Your task to perform on an android device: add a contact in the contacts app Image 0: 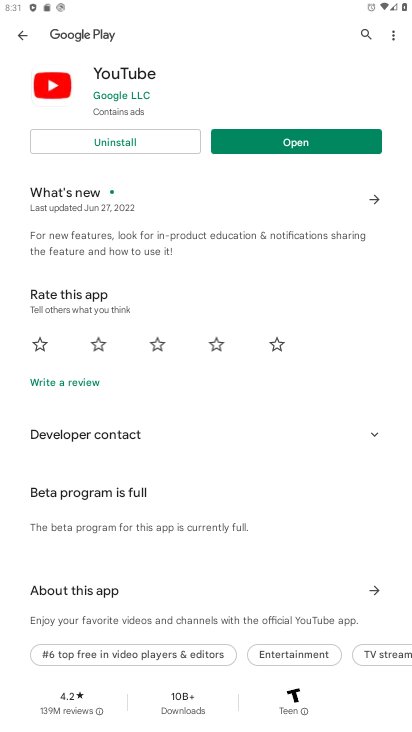
Step 0: press home button
Your task to perform on an android device: add a contact in the contacts app Image 1: 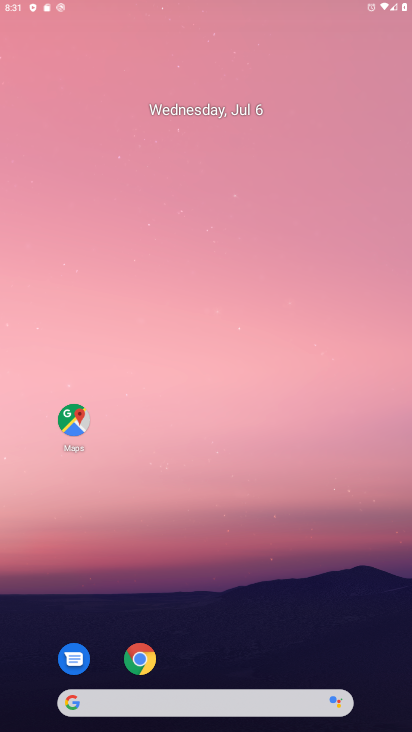
Step 1: drag from (184, 586) to (218, 76)
Your task to perform on an android device: add a contact in the contacts app Image 2: 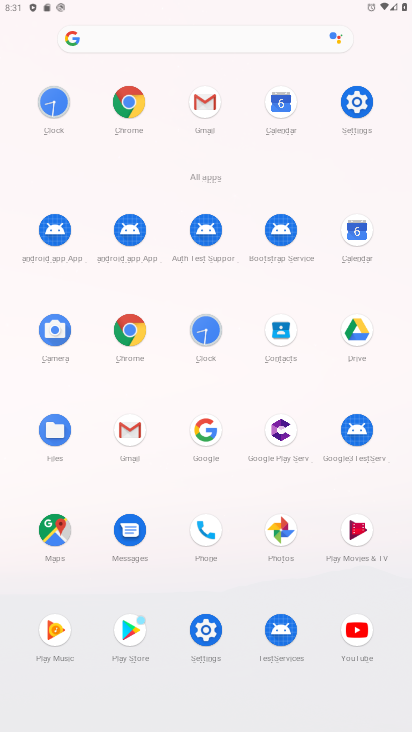
Step 2: click (281, 334)
Your task to perform on an android device: add a contact in the contacts app Image 3: 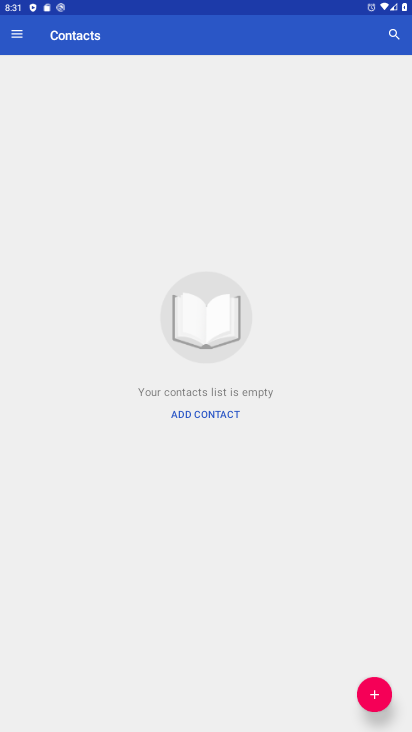
Step 3: click (380, 691)
Your task to perform on an android device: add a contact in the contacts app Image 4: 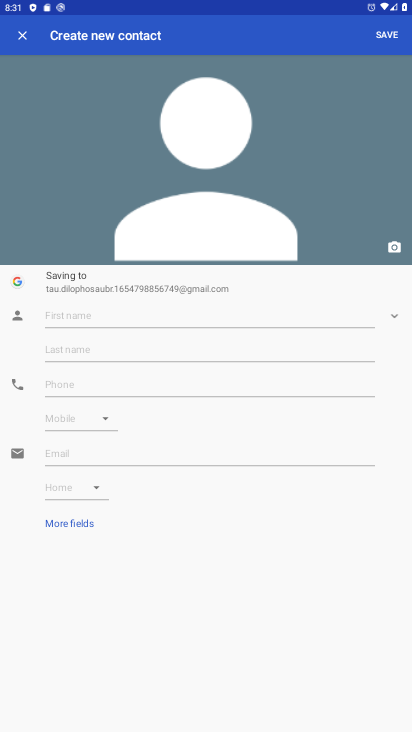
Step 4: click (239, 307)
Your task to perform on an android device: add a contact in the contacts app Image 5: 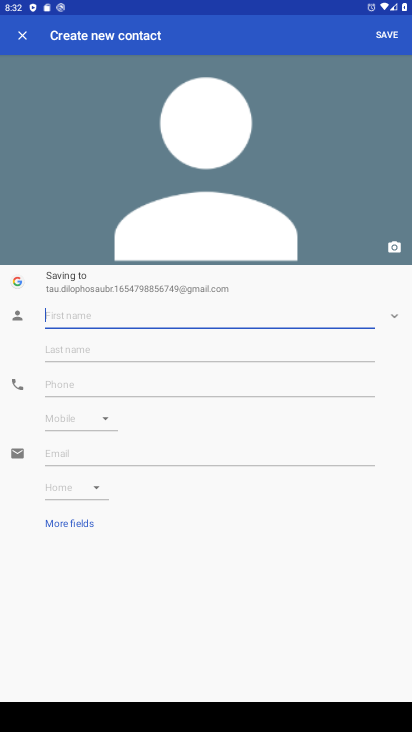
Step 5: type "gcjjcfdgfx"
Your task to perform on an android device: add a contact in the contacts app Image 6: 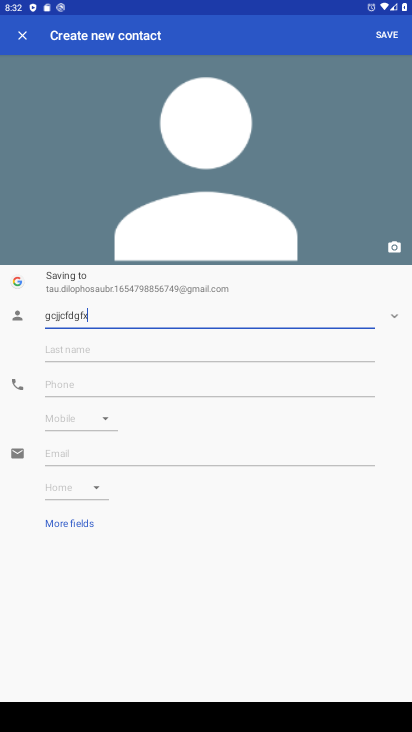
Step 6: click (71, 388)
Your task to perform on an android device: add a contact in the contacts app Image 7: 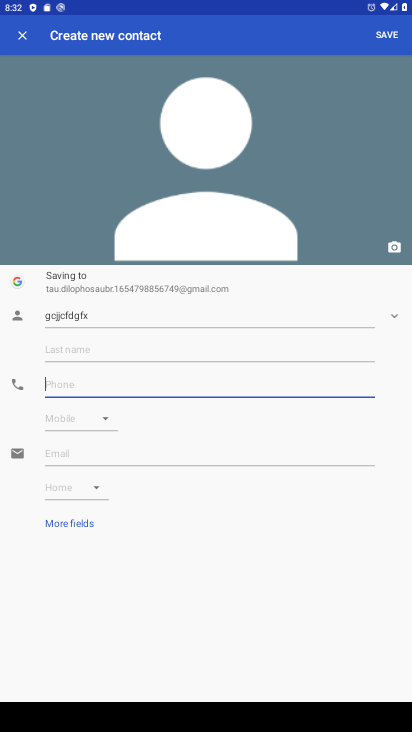
Step 7: type "98766678899"
Your task to perform on an android device: add a contact in the contacts app Image 8: 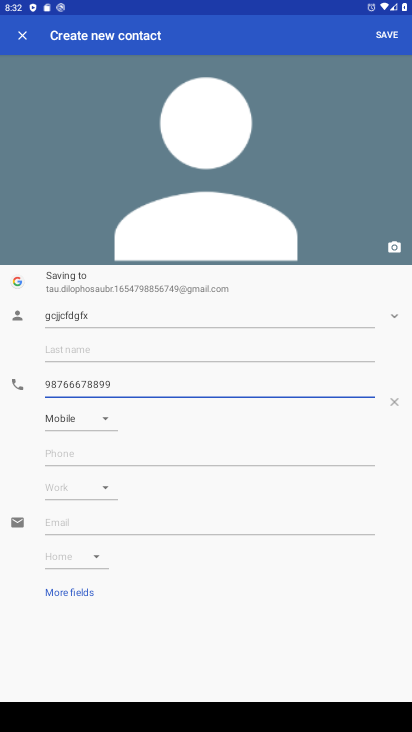
Step 8: click (390, 36)
Your task to perform on an android device: add a contact in the contacts app Image 9: 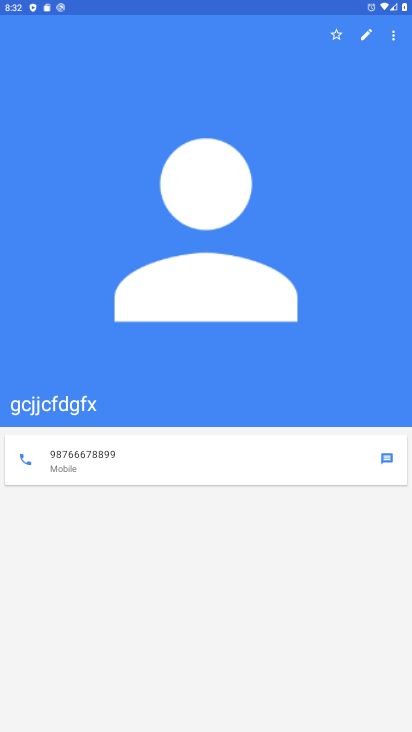
Step 9: task complete